Your task to perform on an android device: Check the weather Image 0: 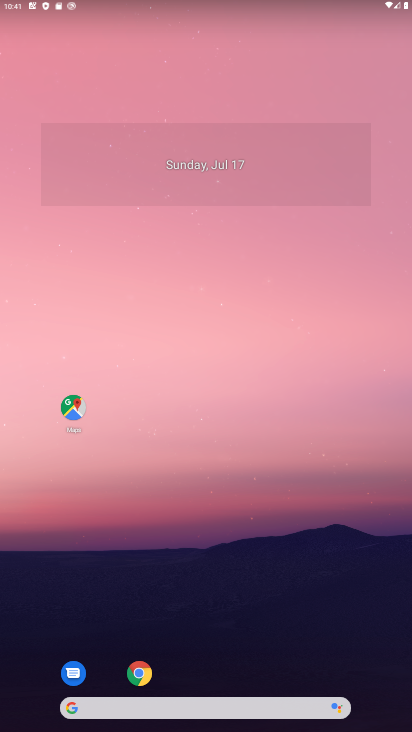
Step 0: drag from (200, 662) to (177, 86)
Your task to perform on an android device: Check the weather Image 1: 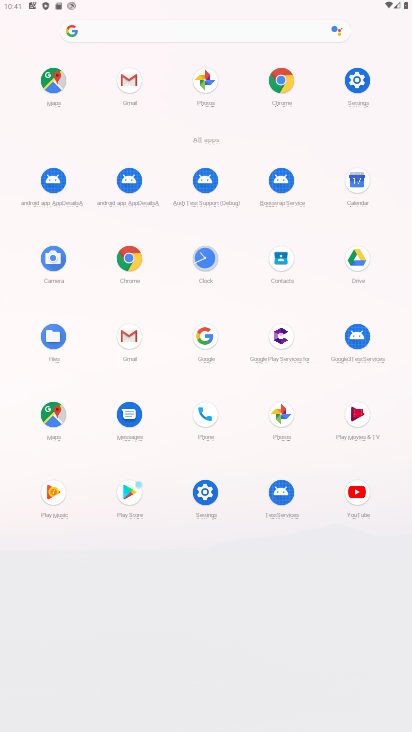
Step 1: click (204, 336)
Your task to perform on an android device: Check the weather Image 2: 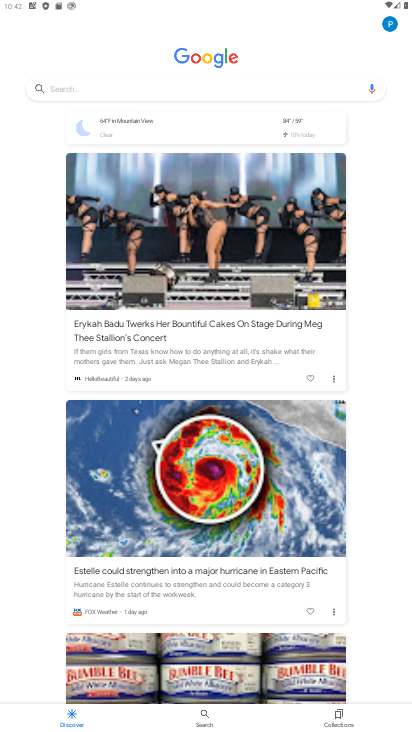
Step 2: click (156, 85)
Your task to perform on an android device: Check the weather Image 3: 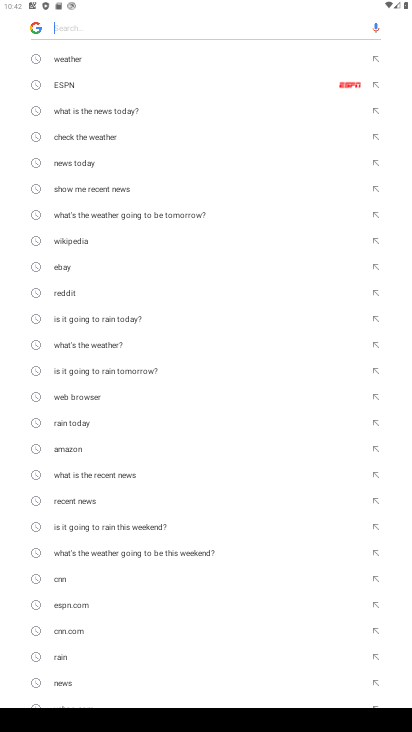
Step 3: click (121, 55)
Your task to perform on an android device: Check the weather Image 4: 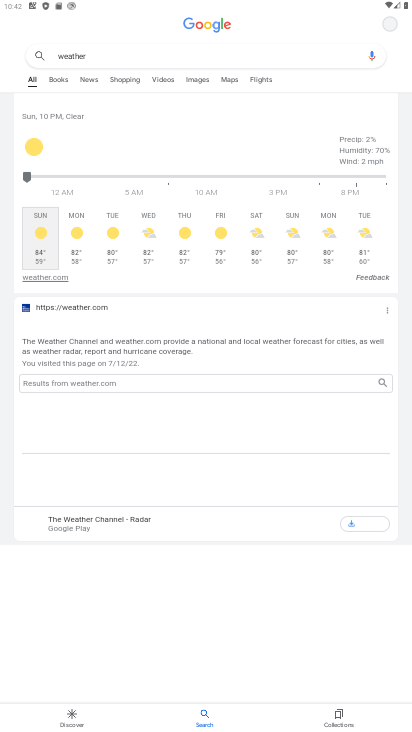
Step 4: task complete